Your task to perform on an android device: Clear all items from cart on newegg.com. Image 0: 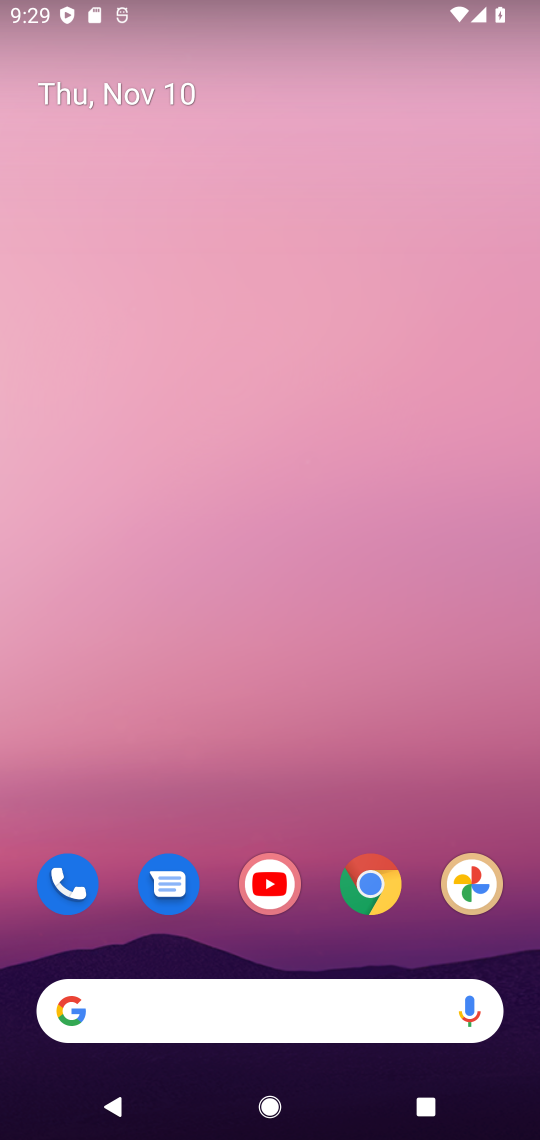
Step 0: click (261, 995)
Your task to perform on an android device: Clear all items from cart on newegg.com. Image 1: 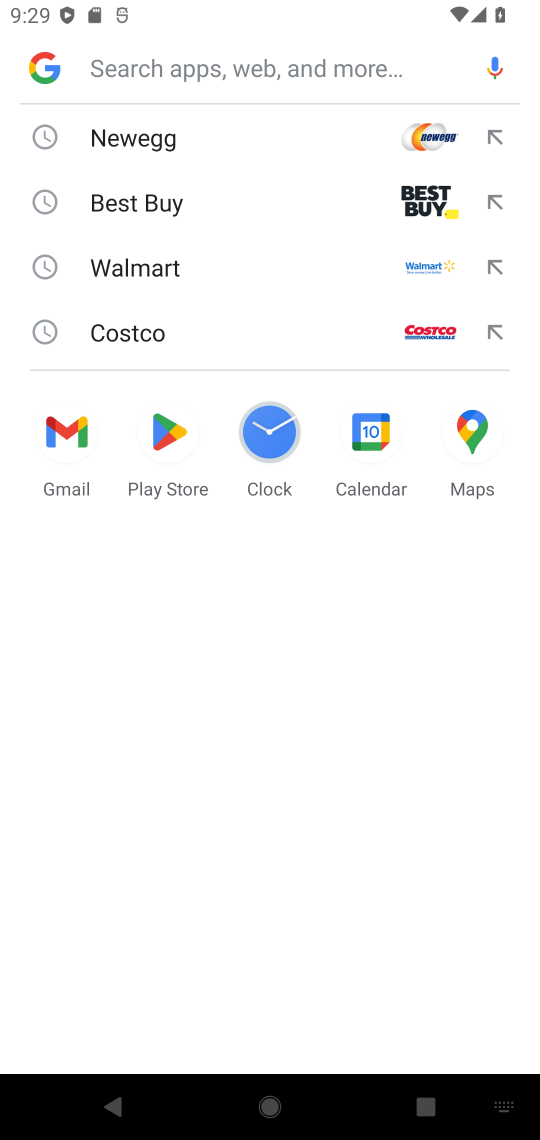
Step 1: click (158, 146)
Your task to perform on an android device: Clear all items from cart on newegg.com. Image 2: 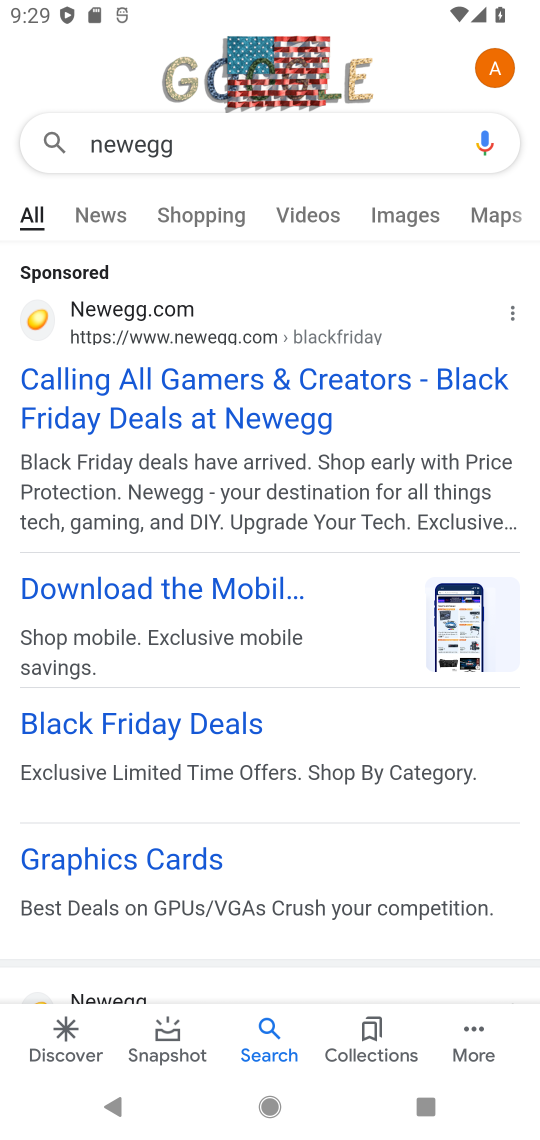
Step 2: click (128, 307)
Your task to perform on an android device: Clear all items from cart on newegg.com. Image 3: 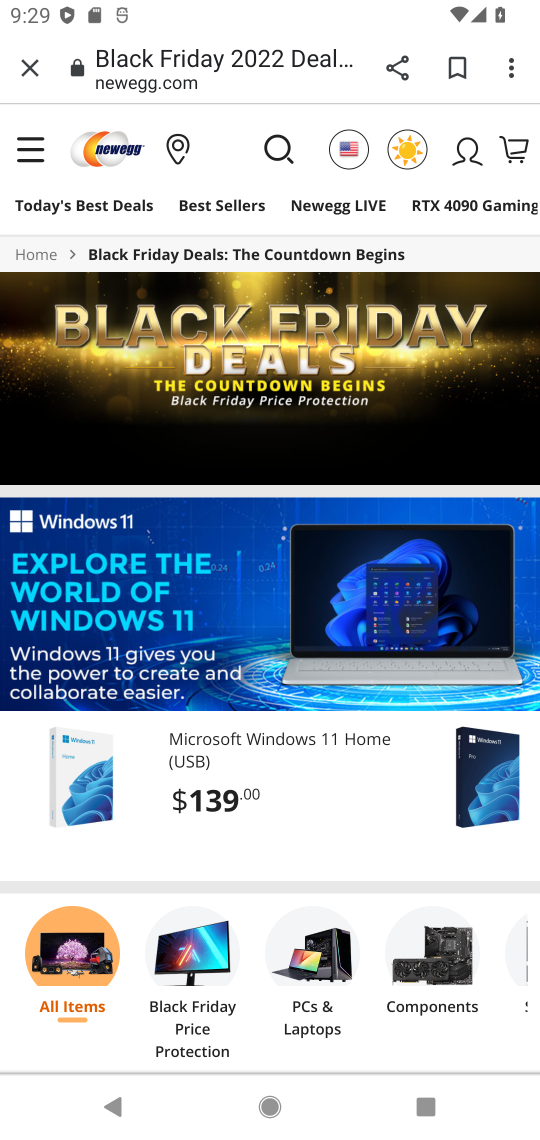
Step 3: click (508, 144)
Your task to perform on an android device: Clear all items from cart on newegg.com. Image 4: 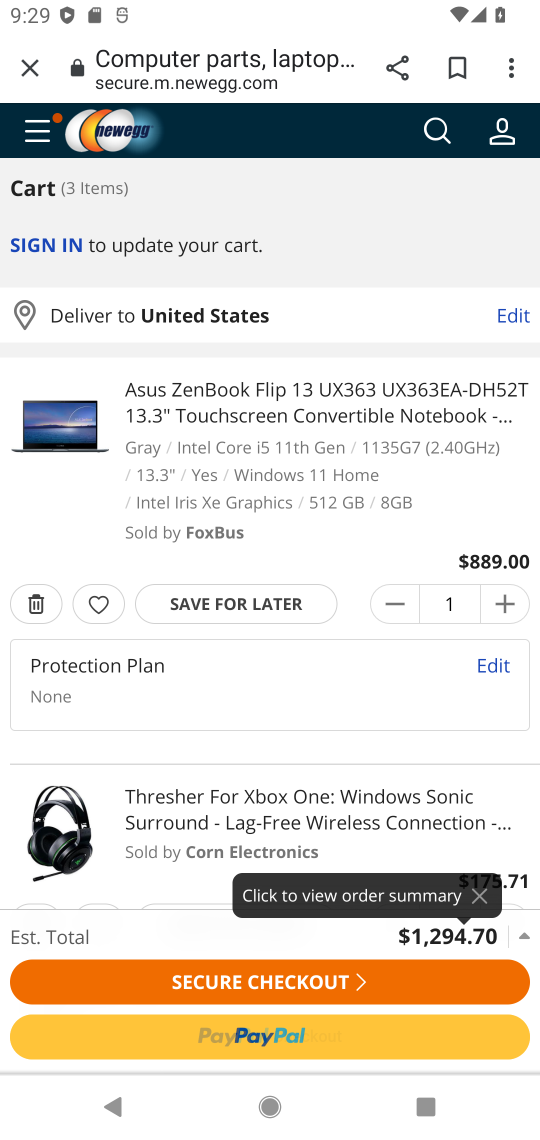
Step 4: click (46, 602)
Your task to perform on an android device: Clear all items from cart on newegg.com. Image 5: 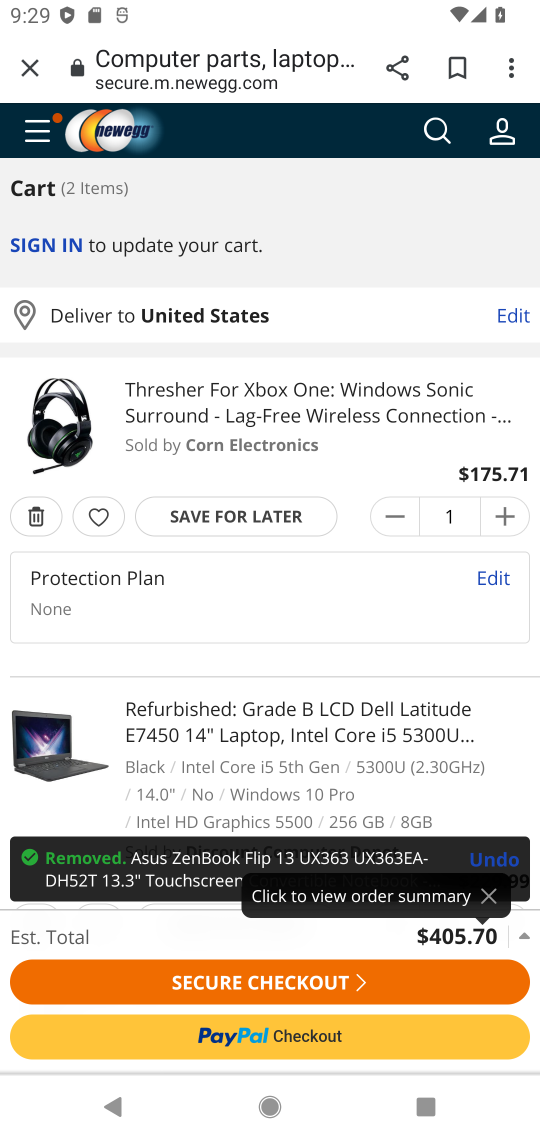
Step 5: click (30, 511)
Your task to perform on an android device: Clear all items from cart on newegg.com. Image 6: 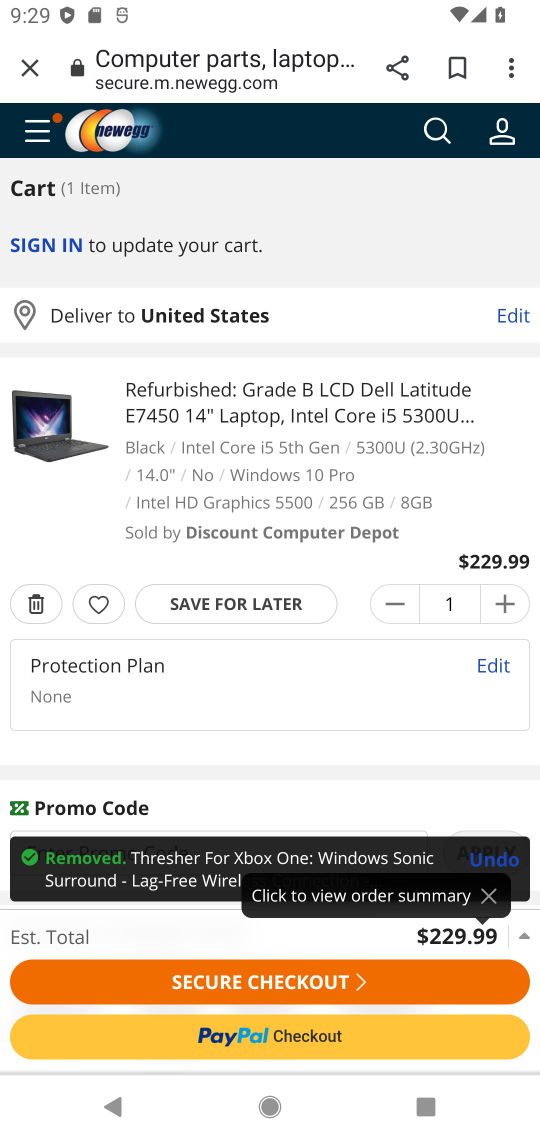
Step 6: click (37, 603)
Your task to perform on an android device: Clear all items from cart on newegg.com. Image 7: 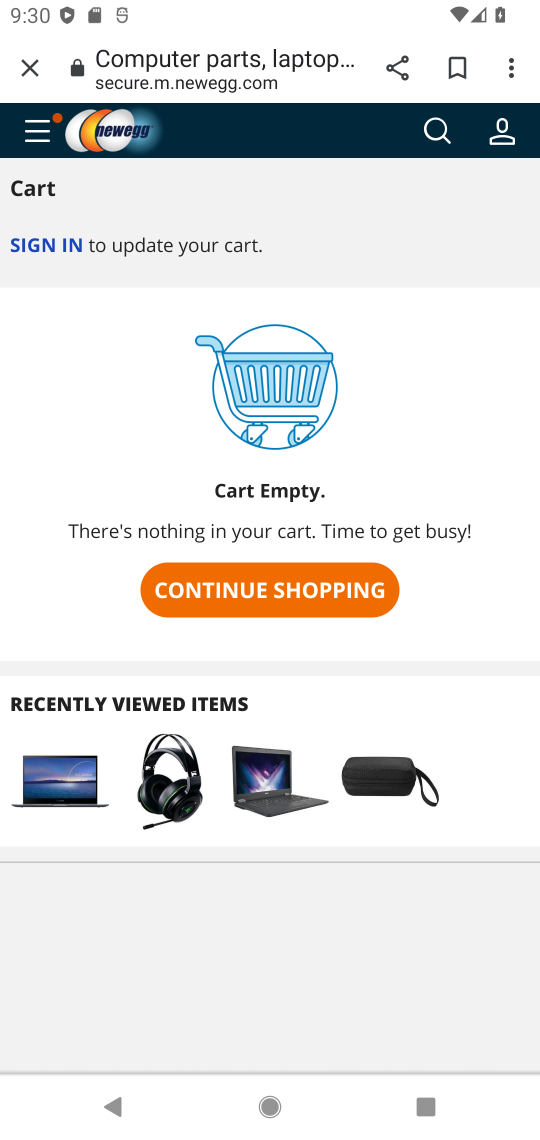
Step 7: task complete